Your task to perform on an android device: Open settings Image 0: 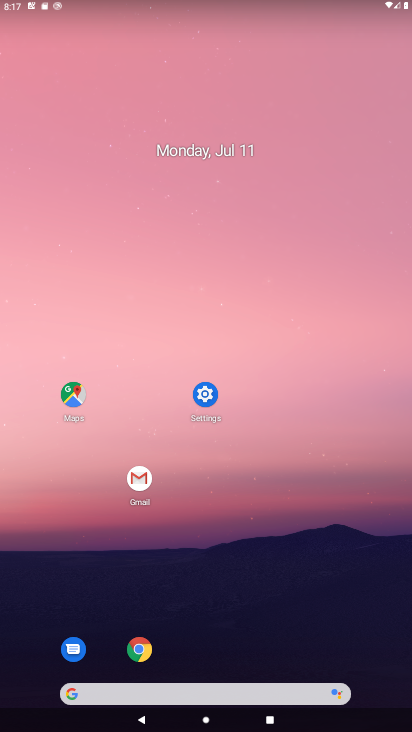
Step 0: click (215, 391)
Your task to perform on an android device: Open settings Image 1: 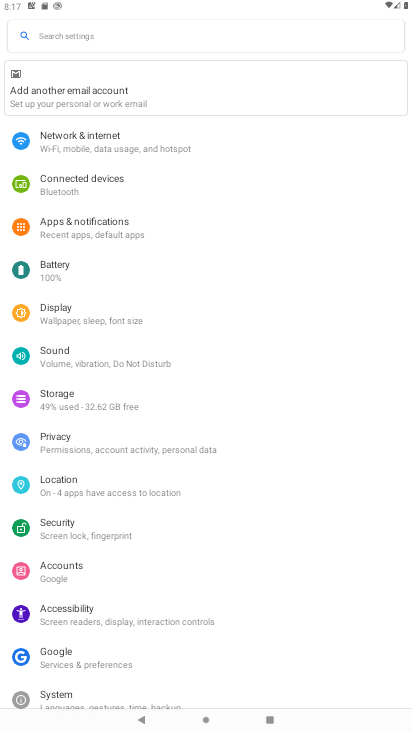
Step 1: task complete